Your task to perform on an android device: check the backup settings in the google photos Image 0: 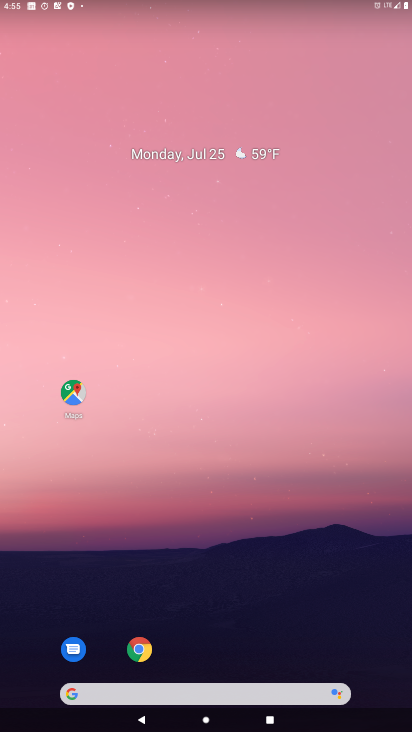
Step 0: drag from (259, 660) to (212, 87)
Your task to perform on an android device: check the backup settings in the google photos Image 1: 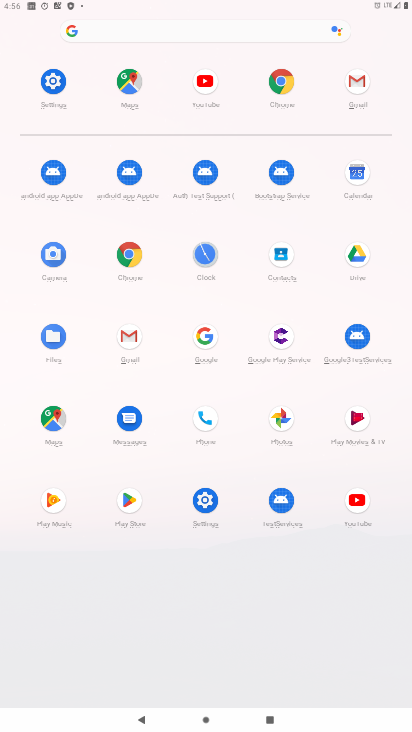
Step 1: click (281, 417)
Your task to perform on an android device: check the backup settings in the google photos Image 2: 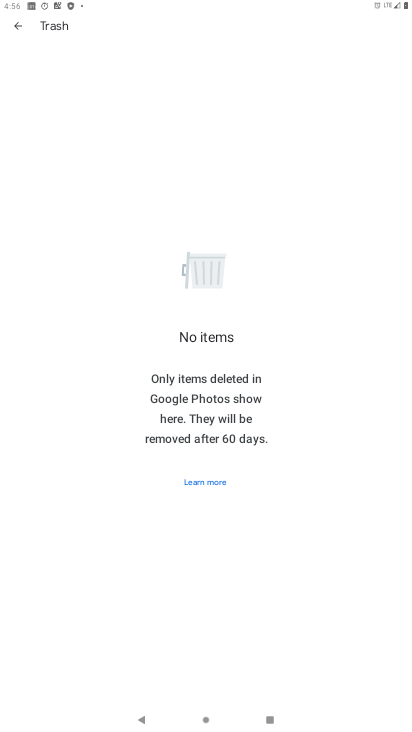
Step 2: click (13, 25)
Your task to perform on an android device: check the backup settings in the google photos Image 3: 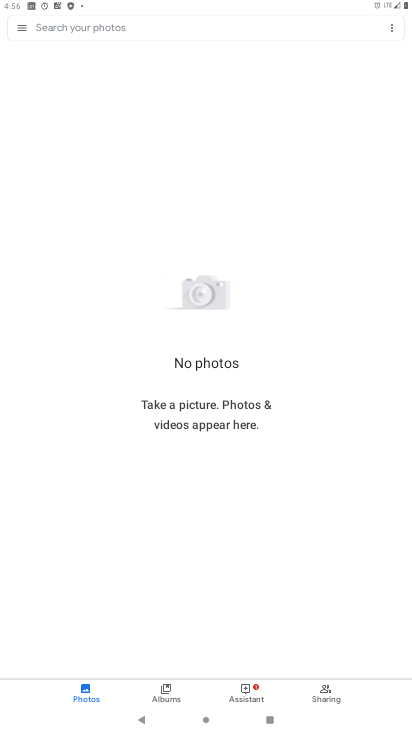
Step 3: click (13, 25)
Your task to perform on an android device: check the backup settings in the google photos Image 4: 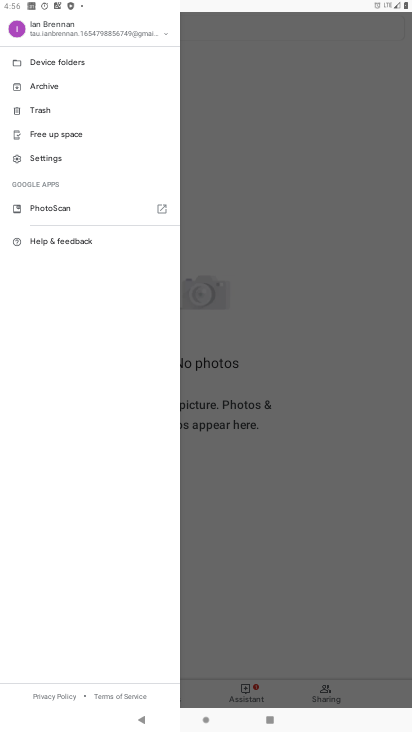
Step 4: click (61, 157)
Your task to perform on an android device: check the backup settings in the google photos Image 5: 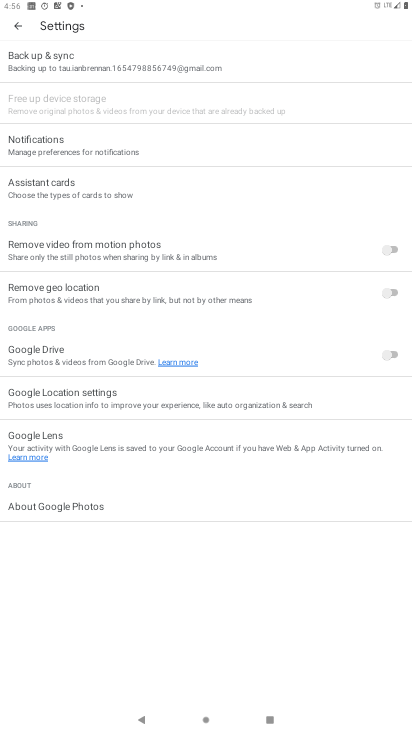
Step 5: click (116, 69)
Your task to perform on an android device: check the backup settings in the google photos Image 6: 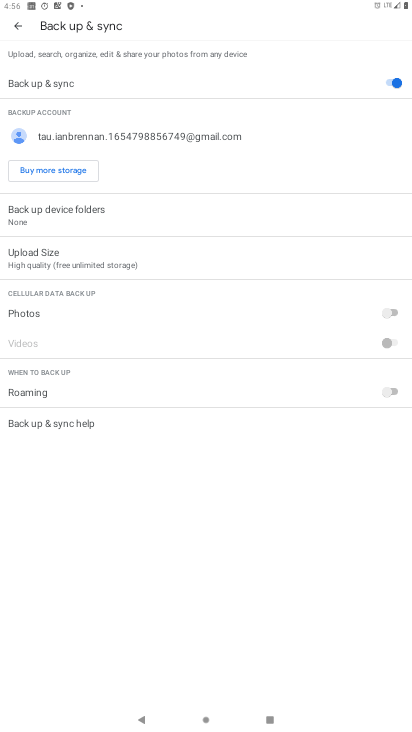
Step 6: task complete